Your task to perform on an android device: uninstall "Spotify" Image 0: 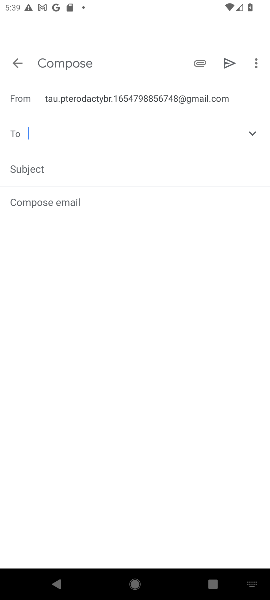
Step 0: press home button
Your task to perform on an android device: uninstall "Spotify" Image 1: 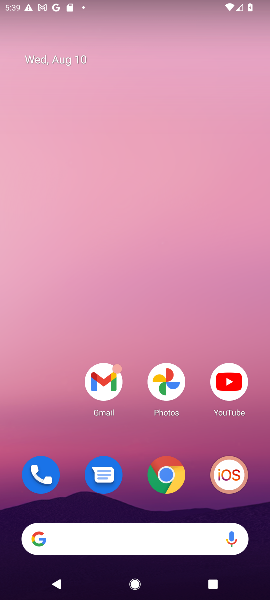
Step 1: drag from (106, 518) to (156, 117)
Your task to perform on an android device: uninstall "Spotify" Image 2: 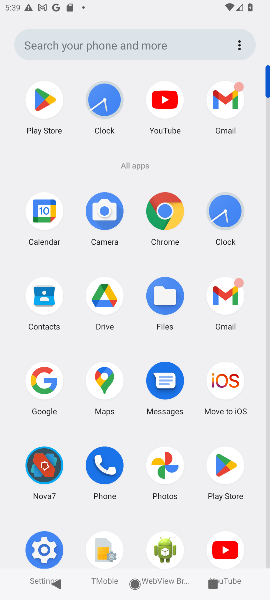
Step 2: click (227, 470)
Your task to perform on an android device: uninstall "Spotify" Image 3: 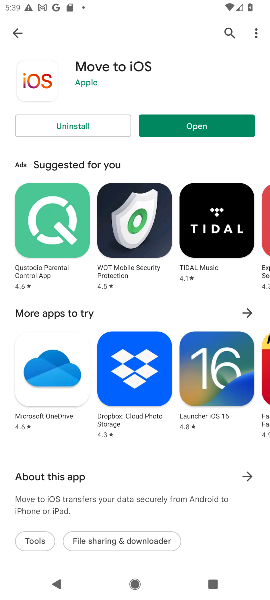
Step 3: click (230, 32)
Your task to perform on an android device: uninstall "Spotify" Image 4: 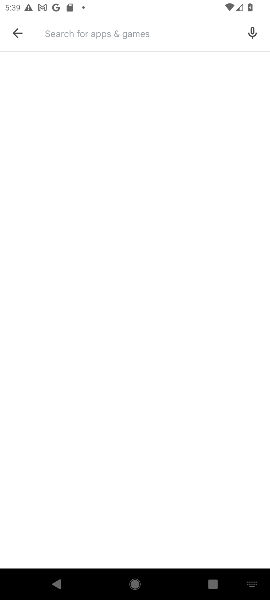
Step 4: type "Spotify""
Your task to perform on an android device: uninstall "Spotify" Image 5: 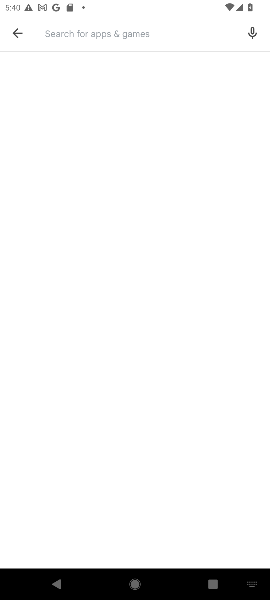
Step 5: type "Spotify""
Your task to perform on an android device: uninstall "Spotify" Image 6: 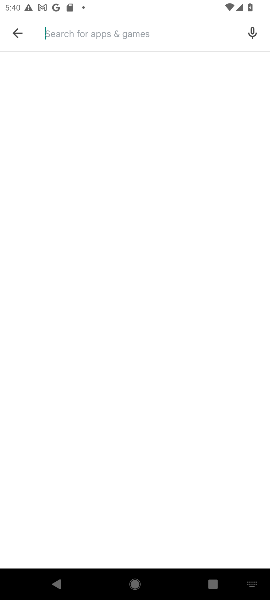
Step 6: type "Spotify"
Your task to perform on an android device: uninstall "Spotify" Image 7: 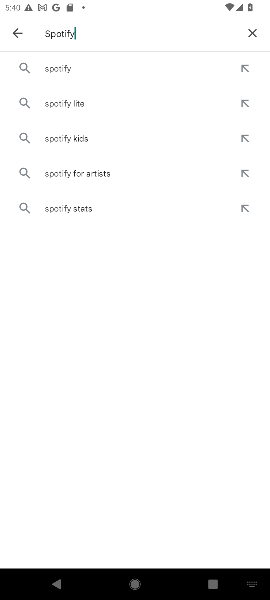
Step 7: click (70, 74)
Your task to perform on an android device: uninstall "Spotify" Image 8: 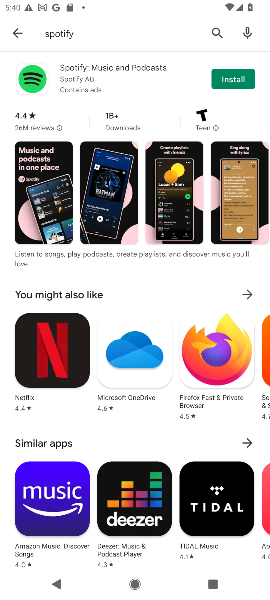
Step 8: click (223, 80)
Your task to perform on an android device: uninstall "Spotify" Image 9: 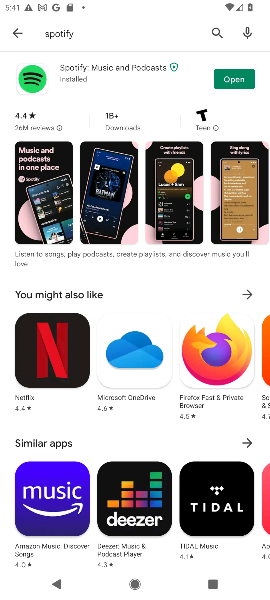
Step 9: click (150, 69)
Your task to perform on an android device: uninstall "Spotify" Image 10: 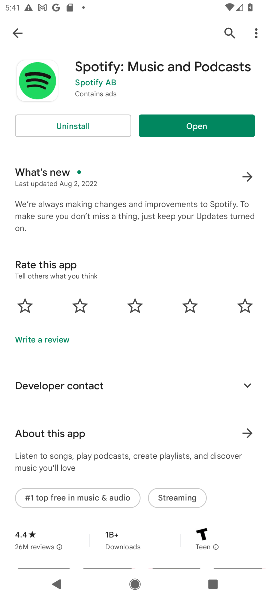
Step 10: click (63, 129)
Your task to perform on an android device: uninstall "Spotify" Image 11: 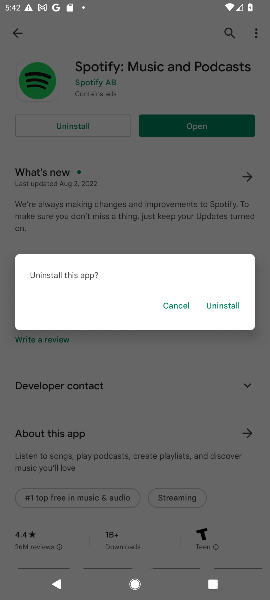
Step 11: click (218, 305)
Your task to perform on an android device: uninstall "Spotify" Image 12: 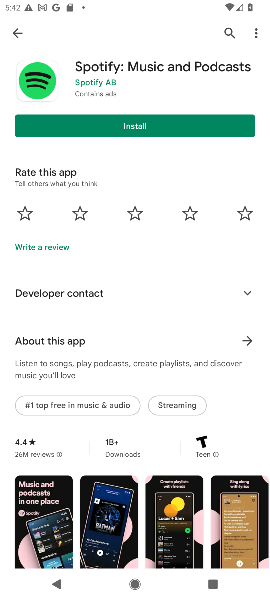
Step 12: task complete